Your task to perform on an android device: toggle improve location accuracy Image 0: 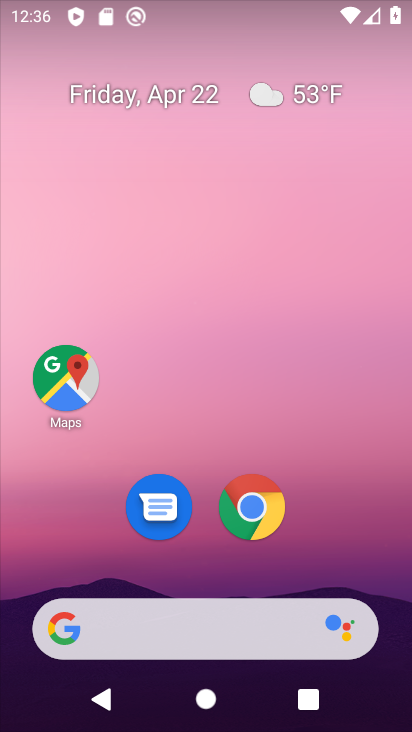
Step 0: drag from (328, 494) to (285, 94)
Your task to perform on an android device: toggle improve location accuracy Image 1: 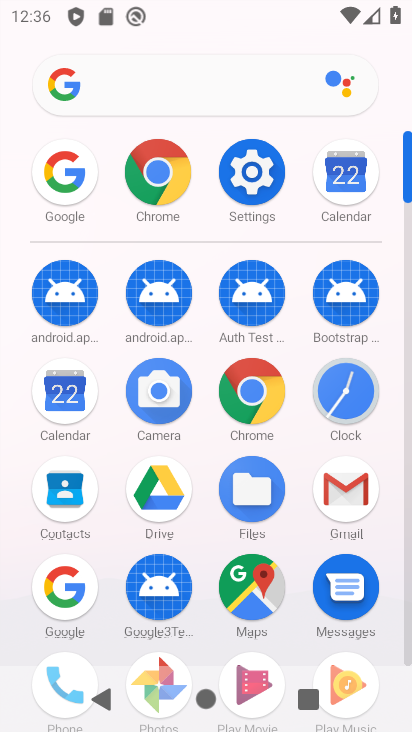
Step 1: click (256, 154)
Your task to perform on an android device: toggle improve location accuracy Image 2: 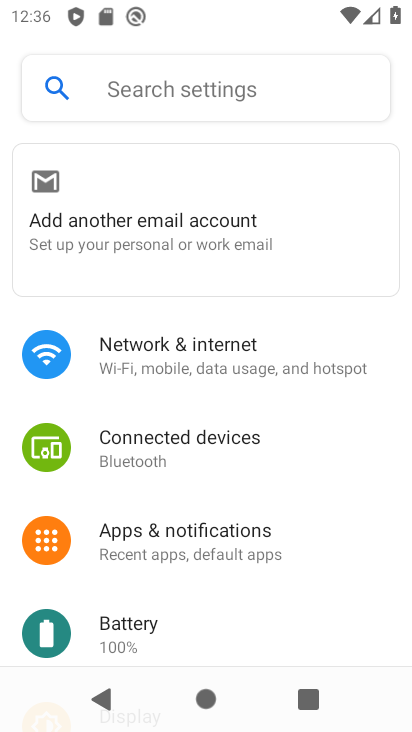
Step 2: drag from (207, 589) to (255, 324)
Your task to perform on an android device: toggle improve location accuracy Image 3: 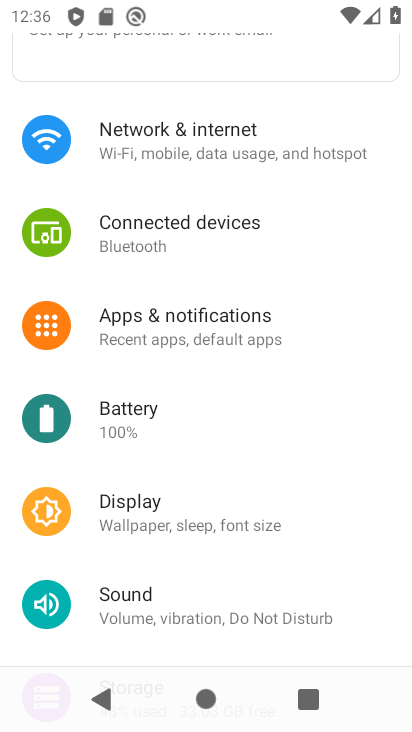
Step 3: drag from (186, 622) to (205, 244)
Your task to perform on an android device: toggle improve location accuracy Image 4: 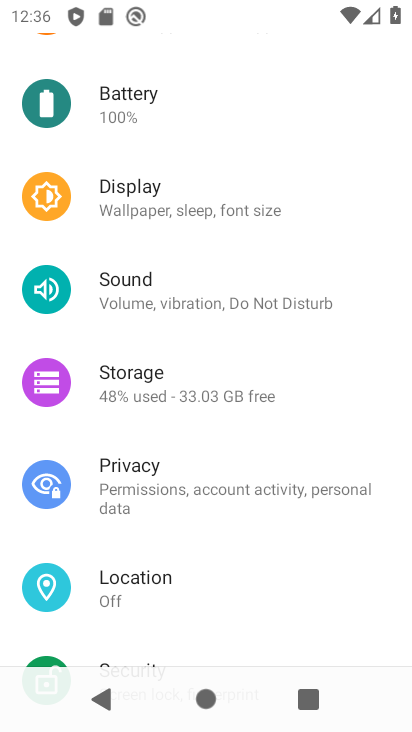
Step 4: click (172, 586)
Your task to perform on an android device: toggle improve location accuracy Image 5: 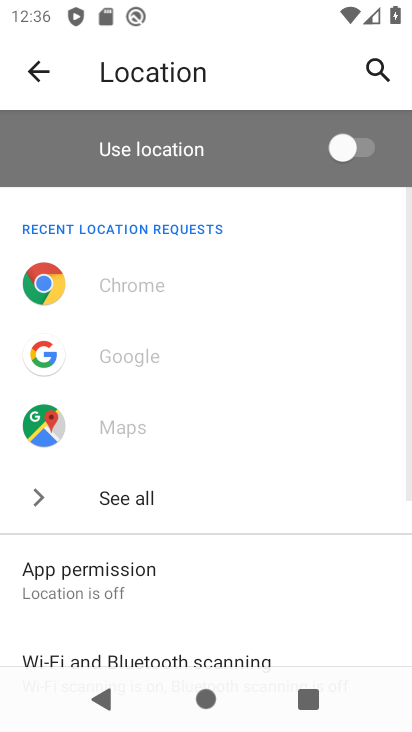
Step 5: drag from (147, 649) to (152, 283)
Your task to perform on an android device: toggle improve location accuracy Image 6: 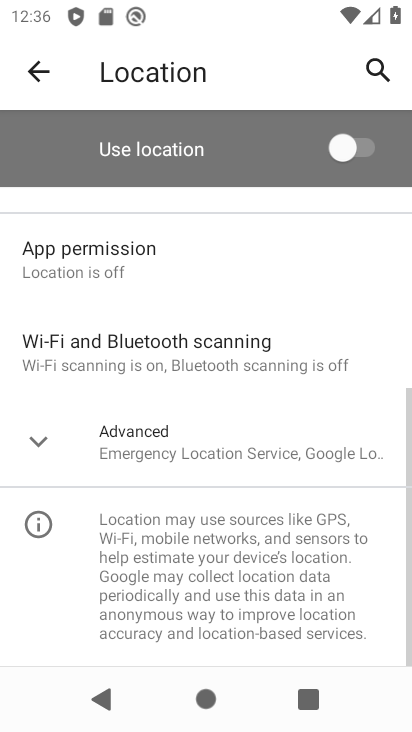
Step 6: click (121, 444)
Your task to perform on an android device: toggle improve location accuracy Image 7: 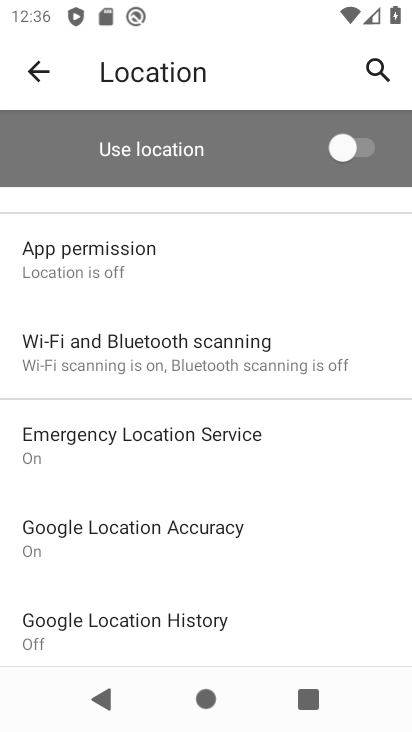
Step 7: click (117, 559)
Your task to perform on an android device: toggle improve location accuracy Image 8: 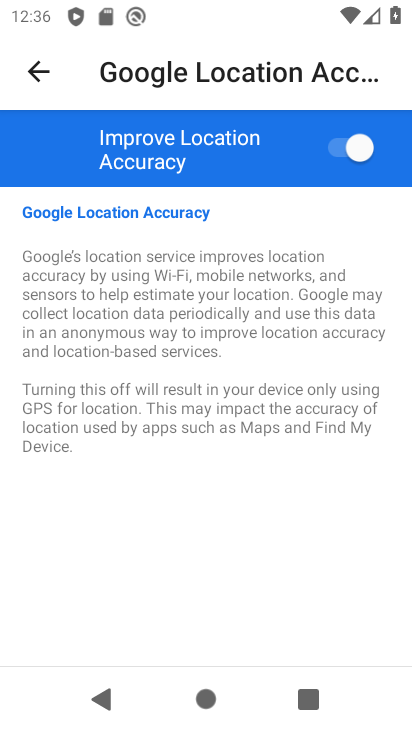
Step 8: click (366, 151)
Your task to perform on an android device: toggle improve location accuracy Image 9: 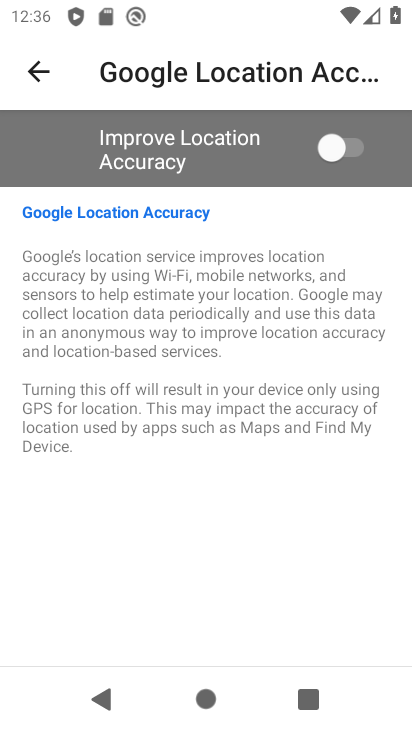
Step 9: task complete